Your task to perform on an android device: star an email in the gmail app Image 0: 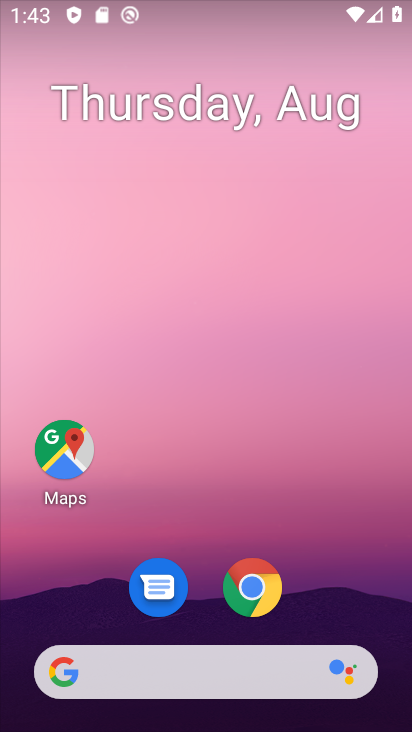
Step 0: drag from (205, 526) to (300, 23)
Your task to perform on an android device: star an email in the gmail app Image 1: 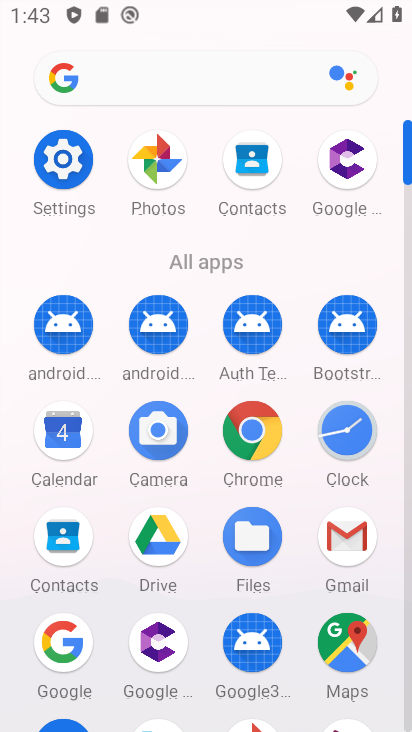
Step 1: click (350, 535)
Your task to perform on an android device: star an email in the gmail app Image 2: 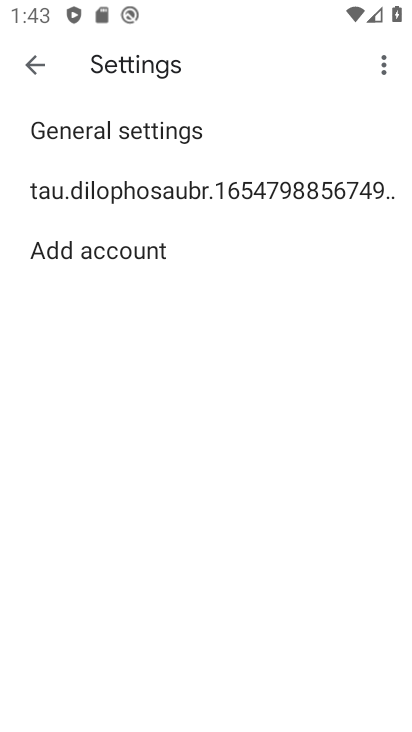
Step 2: click (44, 61)
Your task to perform on an android device: star an email in the gmail app Image 3: 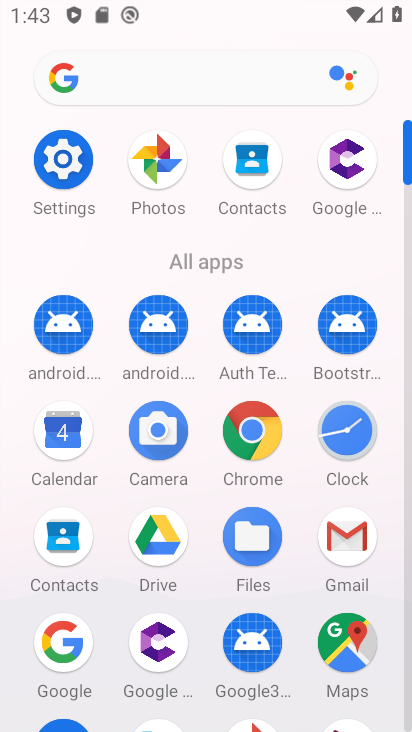
Step 3: click (350, 530)
Your task to perform on an android device: star an email in the gmail app Image 4: 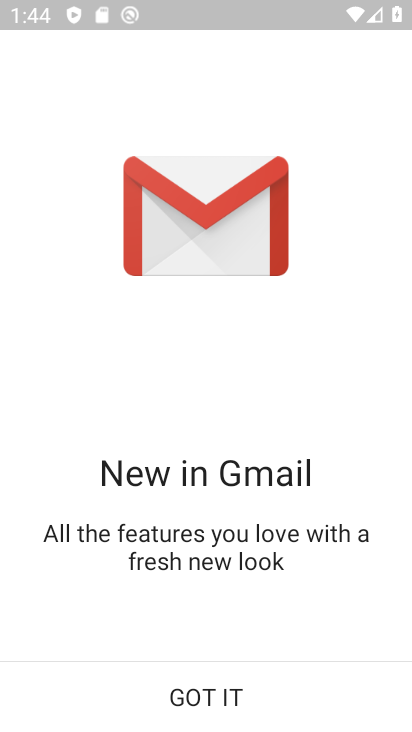
Step 4: click (209, 691)
Your task to perform on an android device: star an email in the gmail app Image 5: 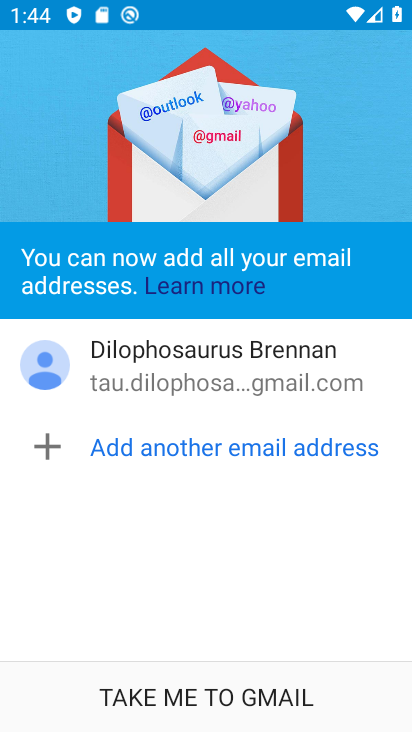
Step 5: click (221, 691)
Your task to perform on an android device: star an email in the gmail app Image 6: 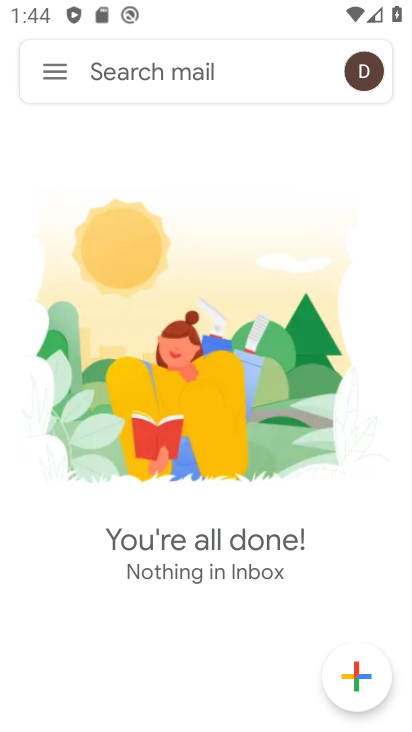
Step 6: task complete